Your task to perform on an android device: Open Chrome and go to settings Image 0: 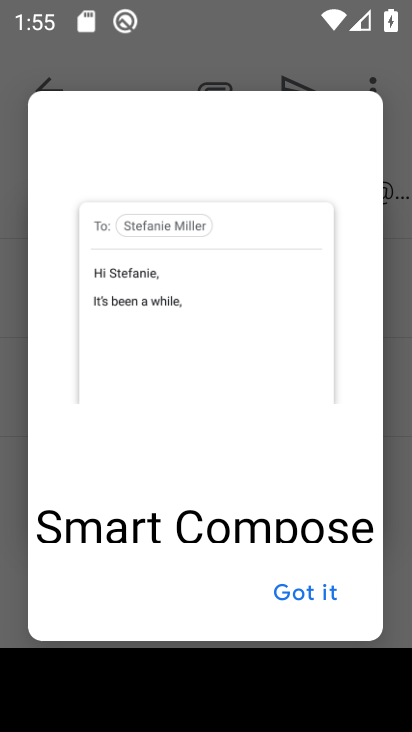
Step 0: press home button
Your task to perform on an android device: Open Chrome and go to settings Image 1: 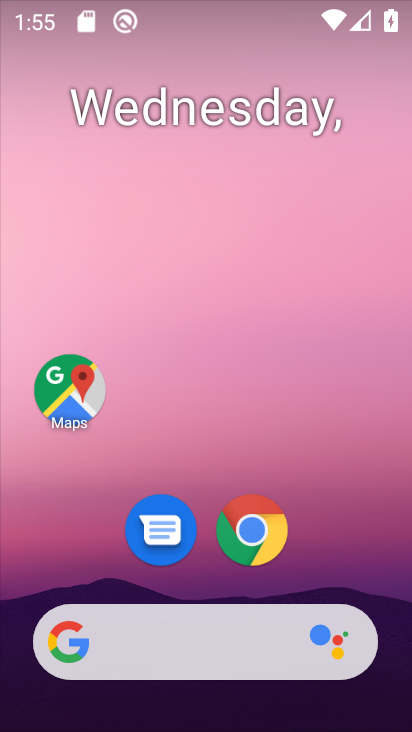
Step 1: click (256, 535)
Your task to perform on an android device: Open Chrome and go to settings Image 2: 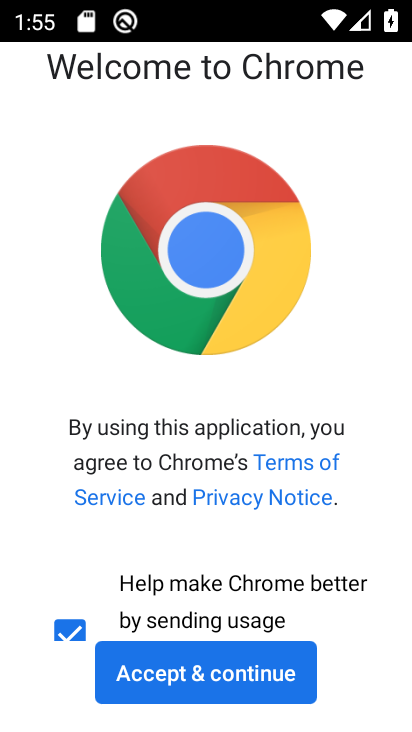
Step 2: click (208, 679)
Your task to perform on an android device: Open Chrome and go to settings Image 3: 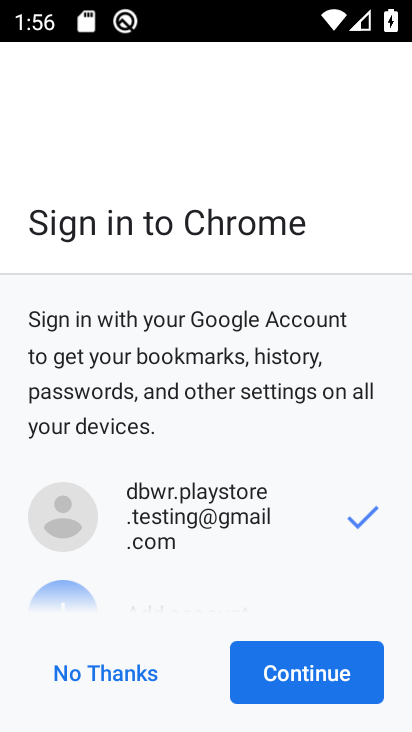
Step 3: click (295, 666)
Your task to perform on an android device: Open Chrome and go to settings Image 4: 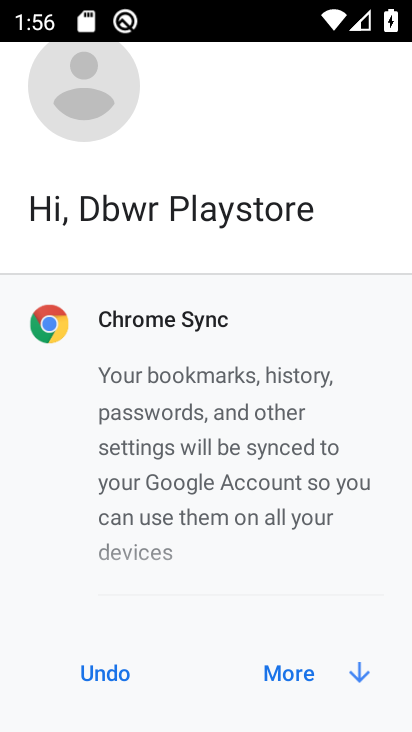
Step 4: click (296, 665)
Your task to perform on an android device: Open Chrome and go to settings Image 5: 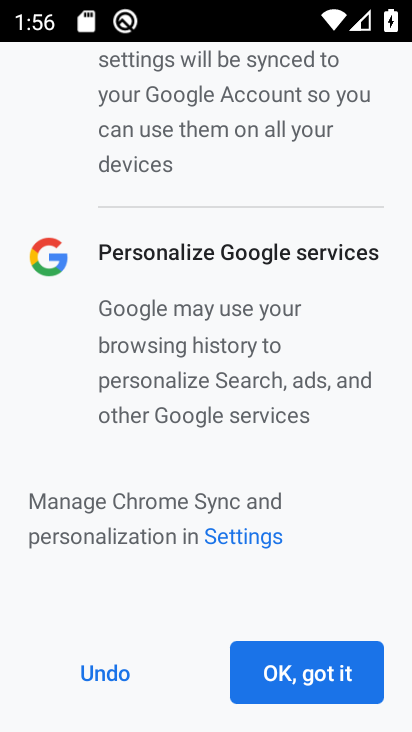
Step 5: click (293, 662)
Your task to perform on an android device: Open Chrome and go to settings Image 6: 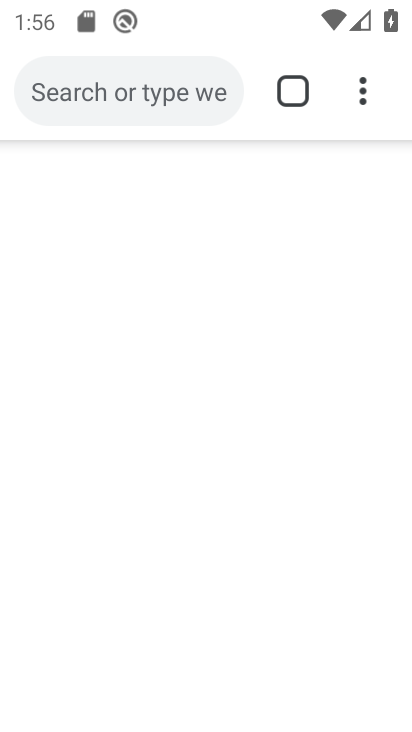
Step 6: click (373, 78)
Your task to perform on an android device: Open Chrome and go to settings Image 7: 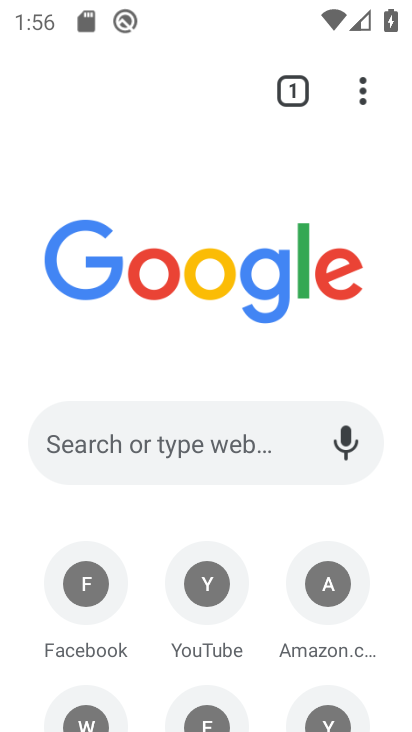
Step 7: click (356, 85)
Your task to perform on an android device: Open Chrome and go to settings Image 8: 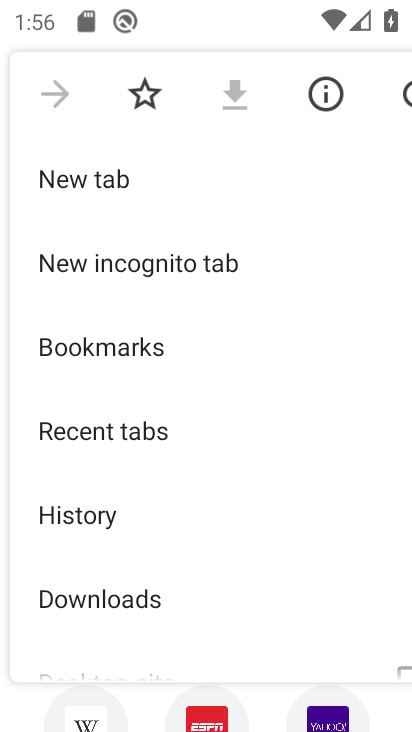
Step 8: drag from (162, 608) to (182, 224)
Your task to perform on an android device: Open Chrome and go to settings Image 9: 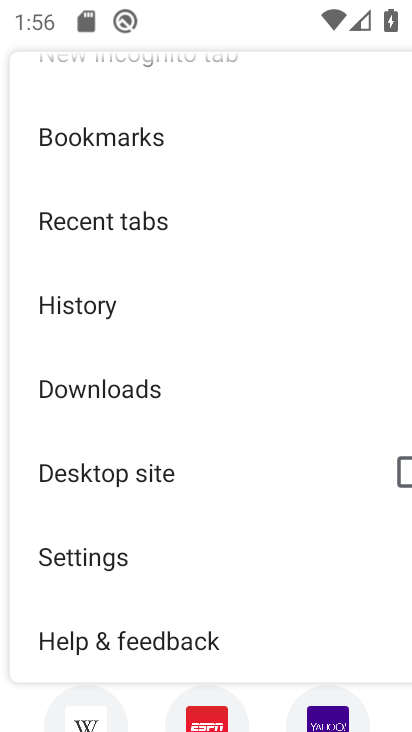
Step 9: click (123, 565)
Your task to perform on an android device: Open Chrome and go to settings Image 10: 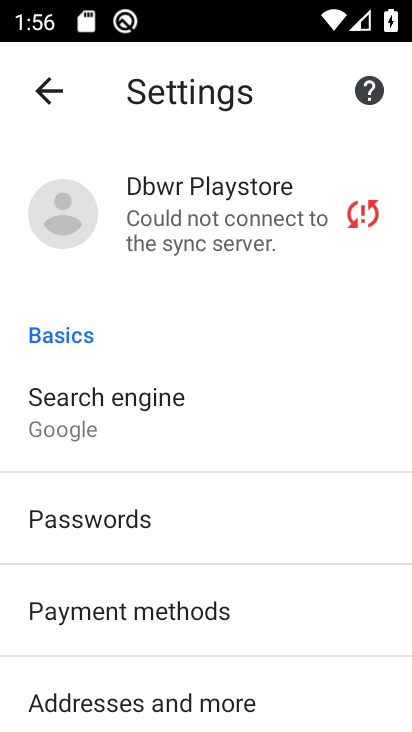
Step 10: task complete